Your task to perform on an android device: Check the news Image 0: 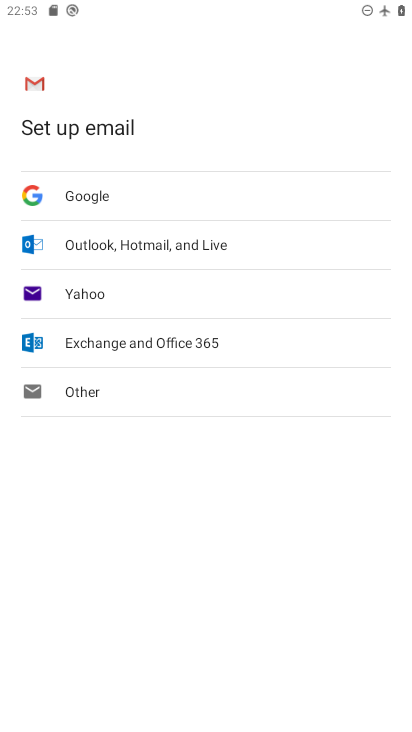
Step 0: press home button
Your task to perform on an android device: Check the news Image 1: 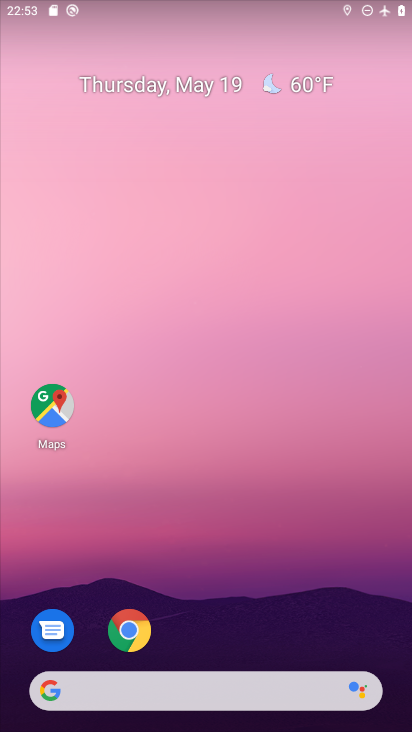
Step 1: task complete